Your task to perform on an android device: Is it going to rain this weekend? Image 0: 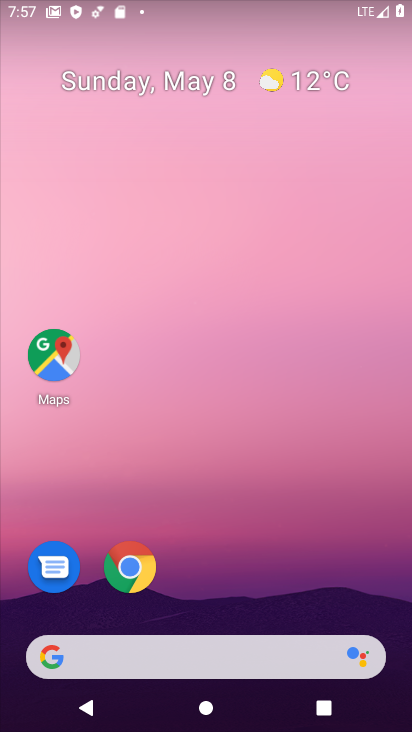
Step 0: click (307, 89)
Your task to perform on an android device: Is it going to rain this weekend? Image 1: 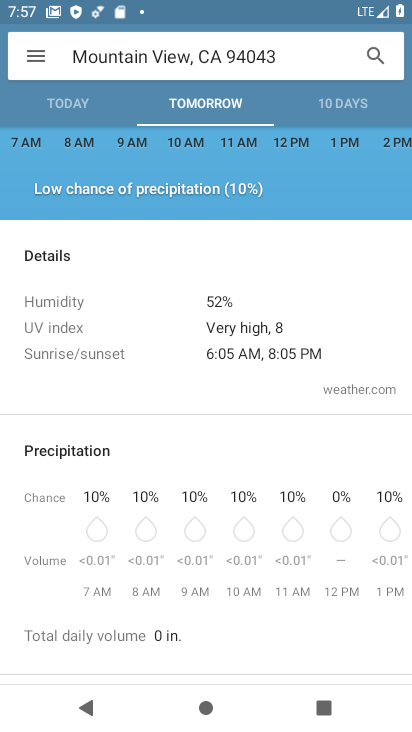
Step 1: click (344, 107)
Your task to perform on an android device: Is it going to rain this weekend? Image 2: 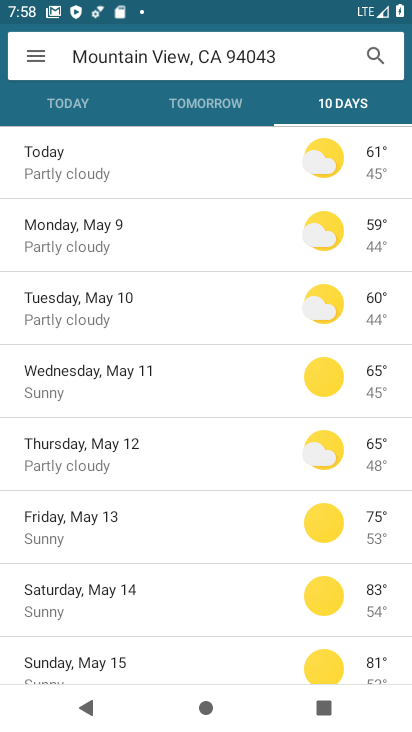
Step 2: task complete